Your task to perform on an android device: Is it going to rain this weekend? Image 0: 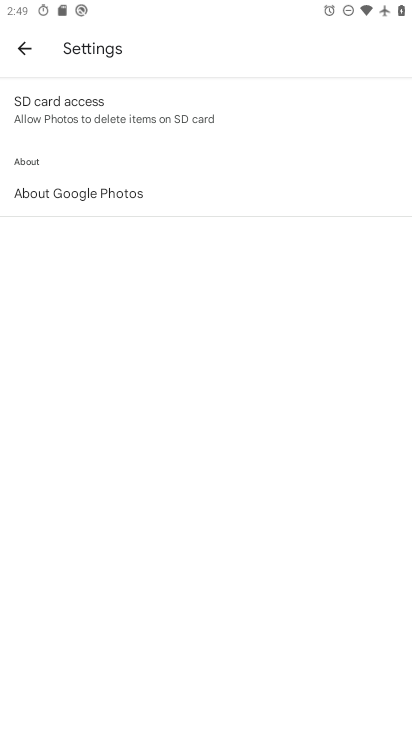
Step 0: press home button
Your task to perform on an android device: Is it going to rain this weekend? Image 1: 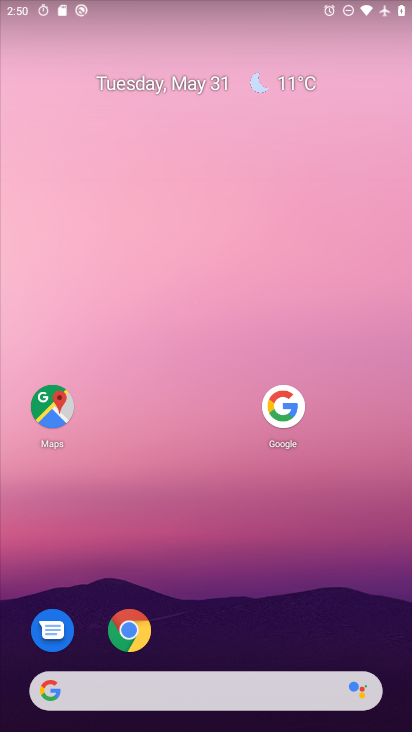
Step 1: click (283, 82)
Your task to perform on an android device: Is it going to rain this weekend? Image 2: 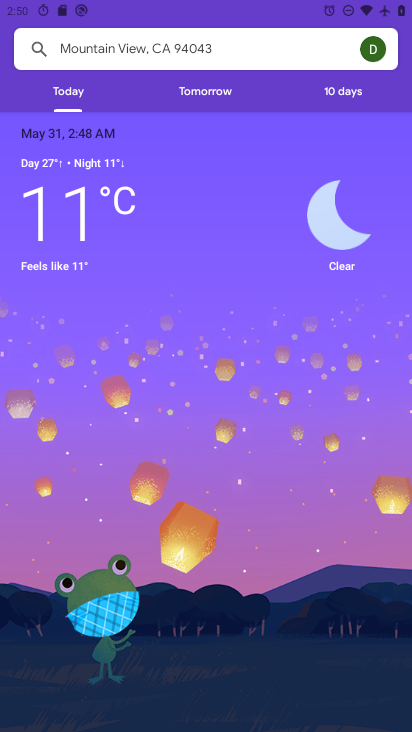
Step 2: click (341, 92)
Your task to perform on an android device: Is it going to rain this weekend? Image 3: 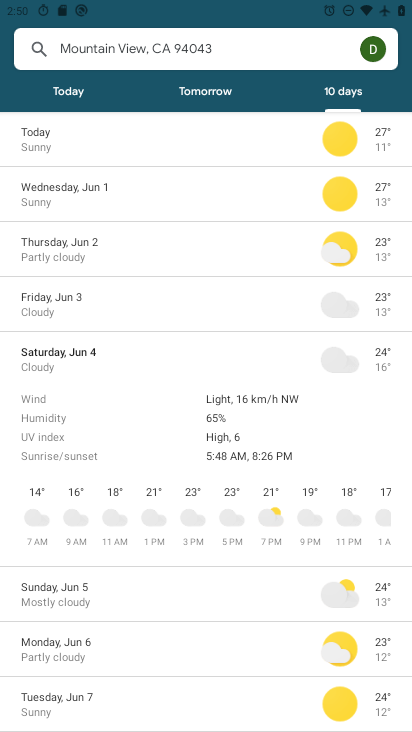
Step 3: task complete